Your task to perform on an android device: find snoozed emails in the gmail app Image 0: 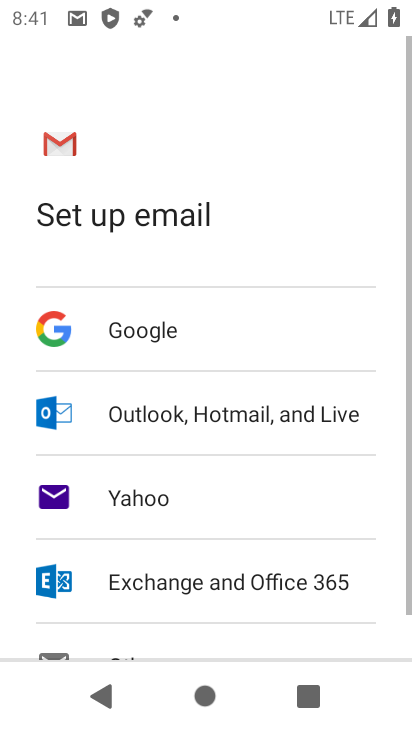
Step 0: press back button
Your task to perform on an android device: find snoozed emails in the gmail app Image 1: 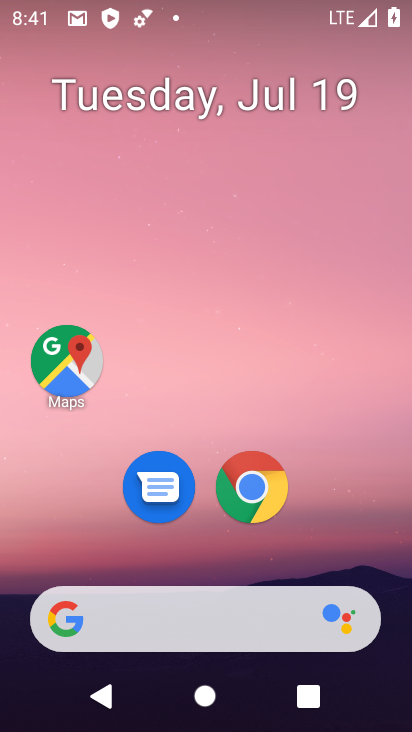
Step 1: drag from (115, 563) to (218, 4)
Your task to perform on an android device: find snoozed emails in the gmail app Image 2: 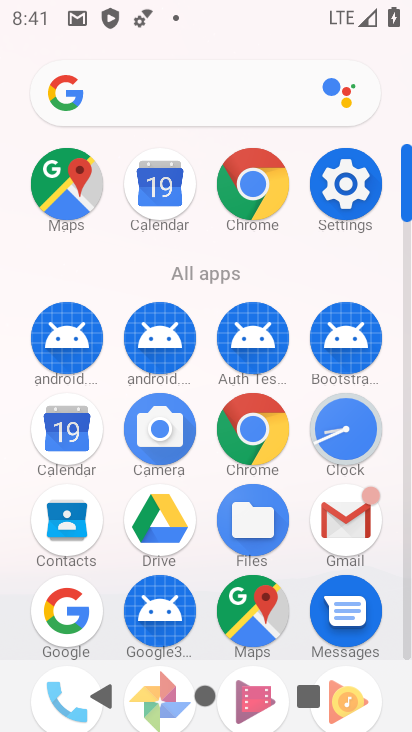
Step 2: click (353, 527)
Your task to perform on an android device: find snoozed emails in the gmail app Image 3: 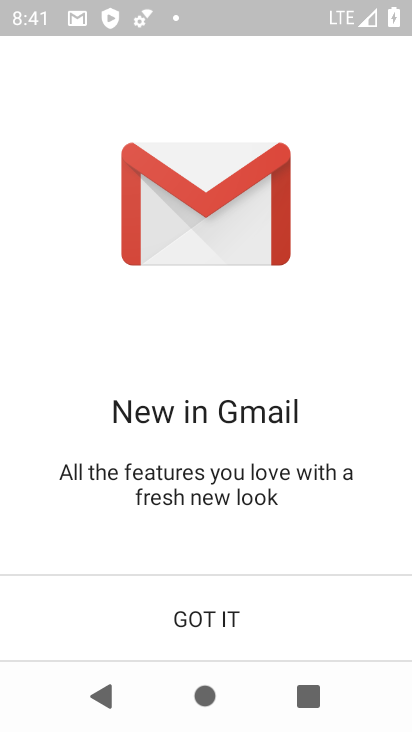
Step 3: click (214, 612)
Your task to perform on an android device: find snoozed emails in the gmail app Image 4: 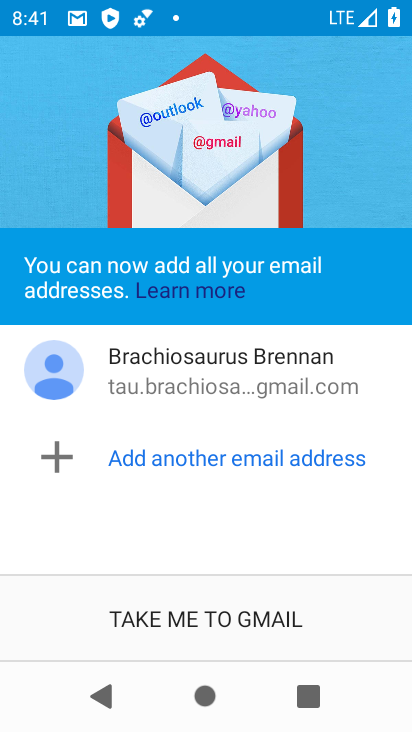
Step 4: click (201, 616)
Your task to perform on an android device: find snoozed emails in the gmail app Image 5: 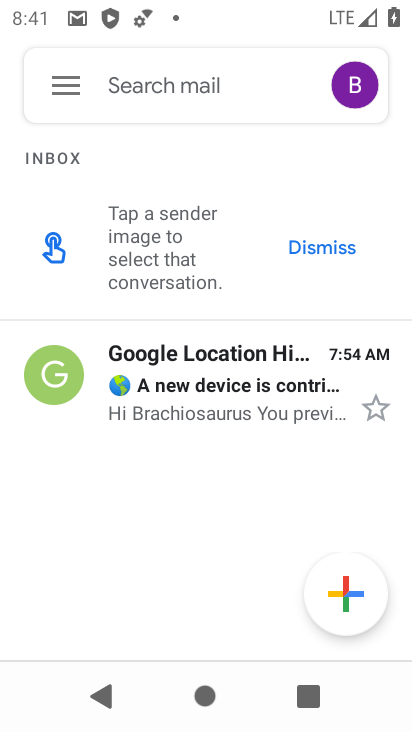
Step 5: click (68, 72)
Your task to perform on an android device: find snoozed emails in the gmail app Image 6: 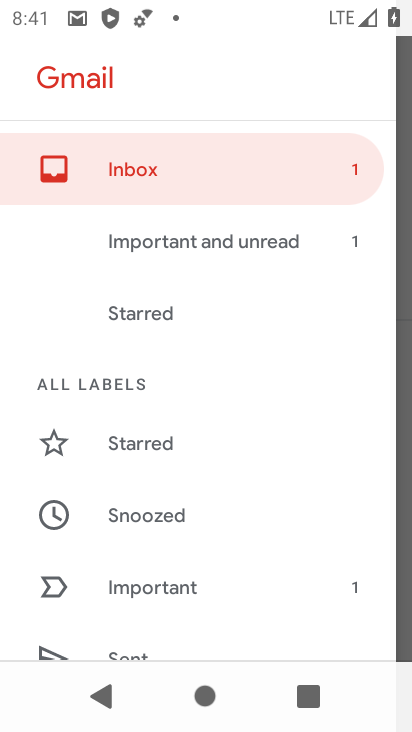
Step 6: click (136, 516)
Your task to perform on an android device: find snoozed emails in the gmail app Image 7: 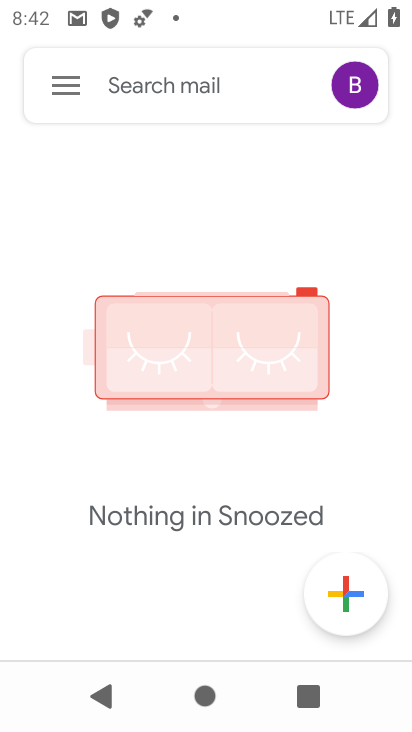
Step 7: task complete